Your task to perform on an android device: turn on wifi Image 0: 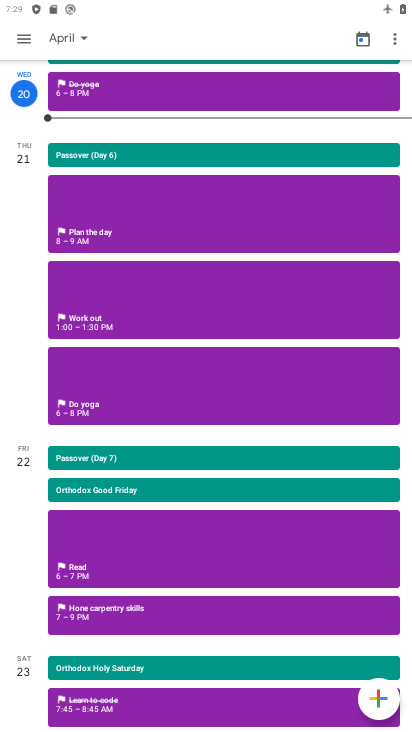
Step 0: press home button
Your task to perform on an android device: turn on wifi Image 1: 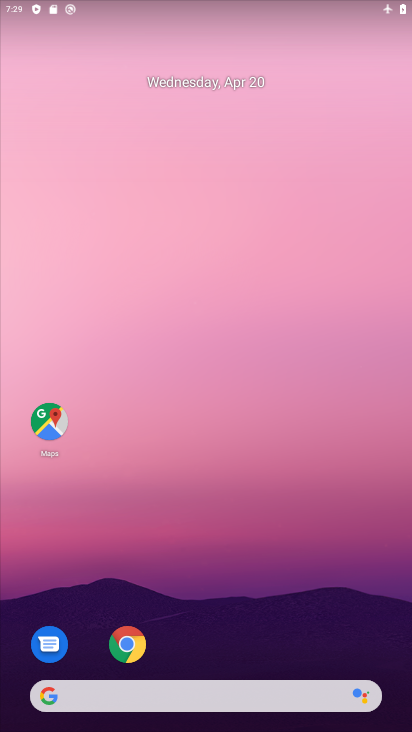
Step 1: drag from (236, 7) to (247, 447)
Your task to perform on an android device: turn on wifi Image 2: 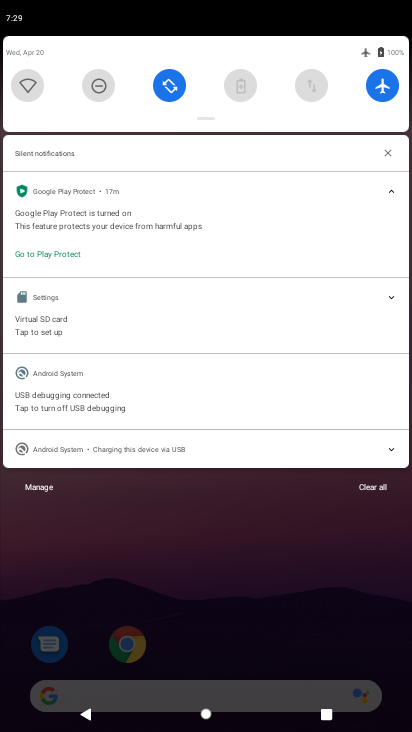
Step 2: drag from (206, 85) to (223, 462)
Your task to perform on an android device: turn on wifi Image 3: 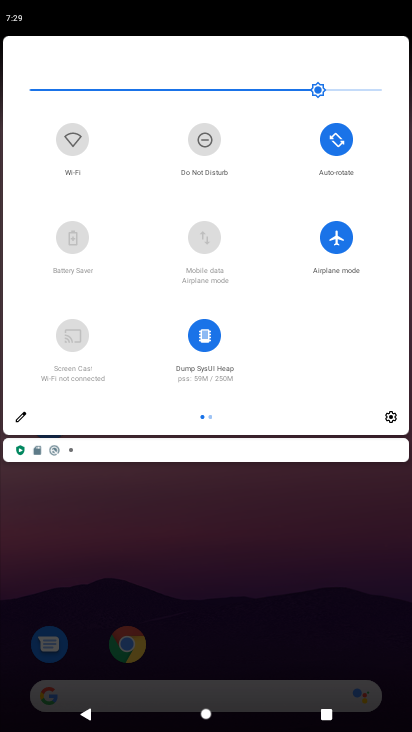
Step 3: click (76, 141)
Your task to perform on an android device: turn on wifi Image 4: 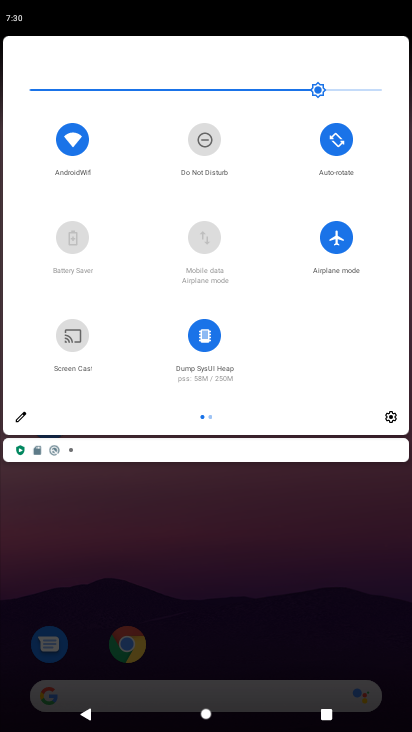
Step 4: task complete